Your task to perform on an android device: turn on airplane mode Image 0: 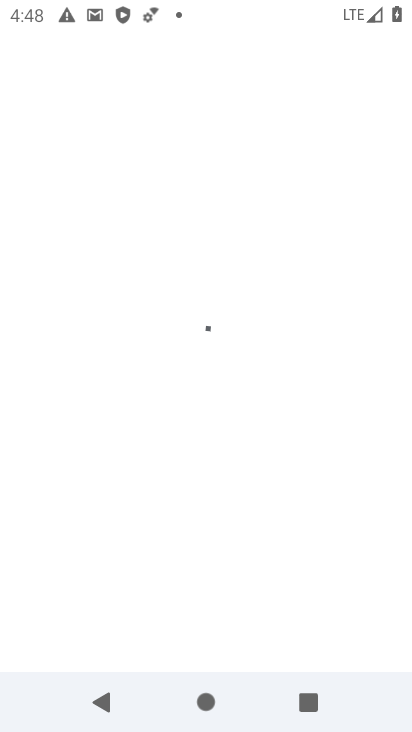
Step 0: drag from (201, 604) to (240, 157)
Your task to perform on an android device: turn on airplane mode Image 1: 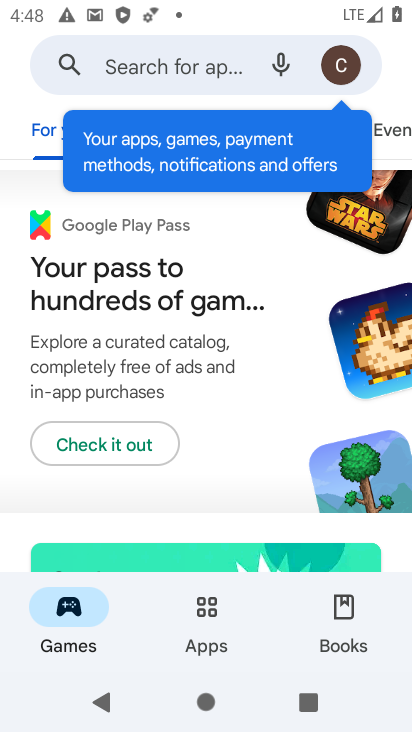
Step 1: press home button
Your task to perform on an android device: turn on airplane mode Image 2: 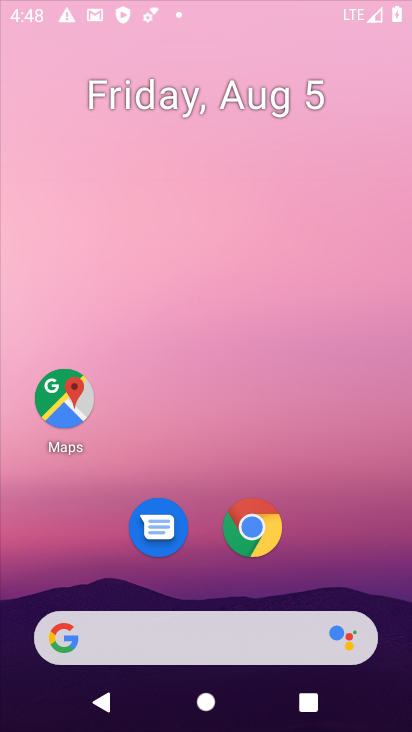
Step 2: drag from (174, 472) to (214, 154)
Your task to perform on an android device: turn on airplane mode Image 3: 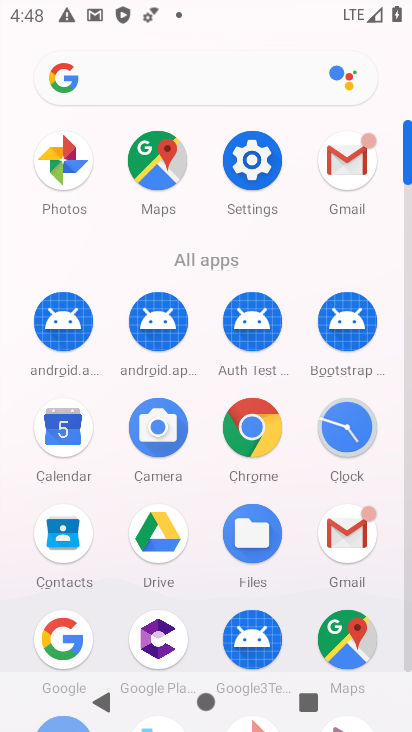
Step 3: drag from (202, 586) to (177, 257)
Your task to perform on an android device: turn on airplane mode Image 4: 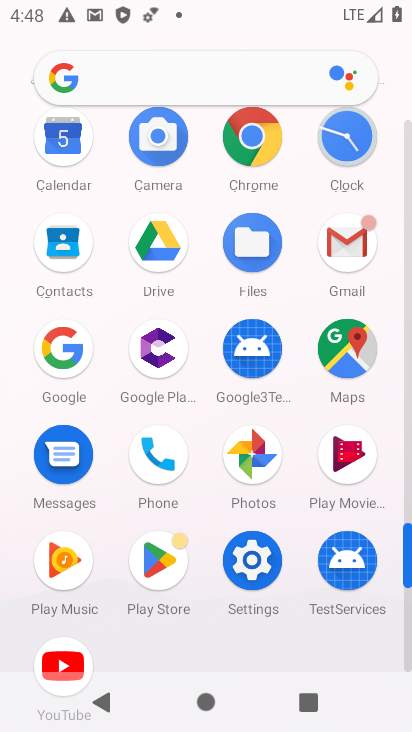
Step 4: click (242, 568)
Your task to perform on an android device: turn on airplane mode Image 5: 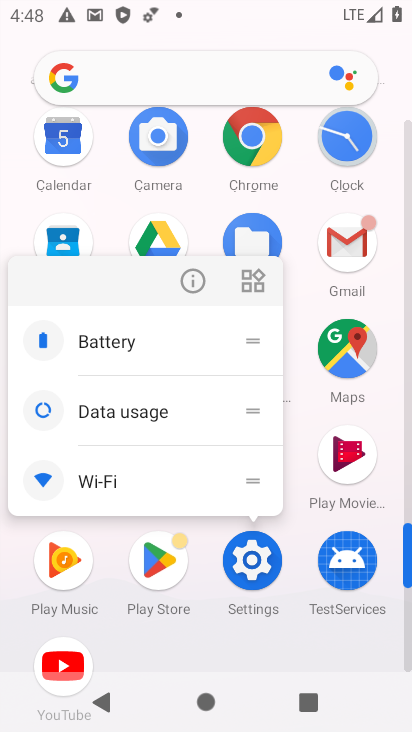
Step 5: click (186, 277)
Your task to perform on an android device: turn on airplane mode Image 6: 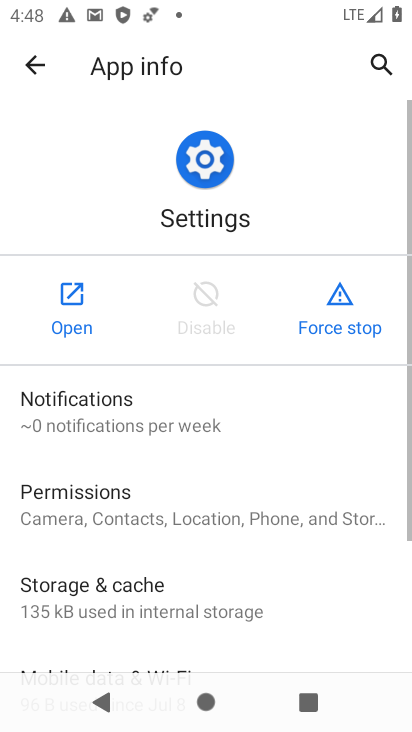
Step 6: click (84, 323)
Your task to perform on an android device: turn on airplane mode Image 7: 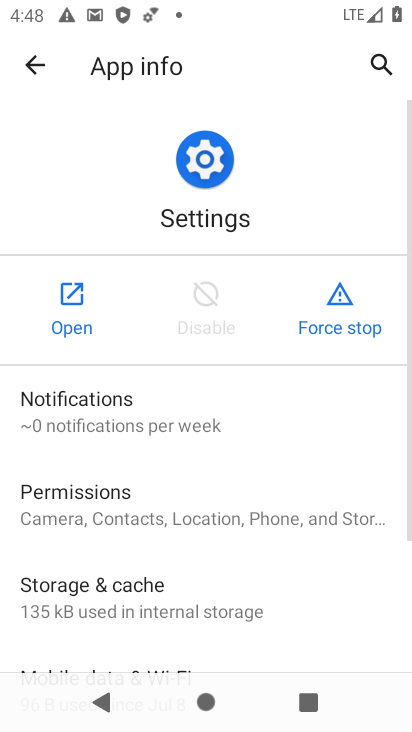
Step 7: click (81, 321)
Your task to perform on an android device: turn on airplane mode Image 8: 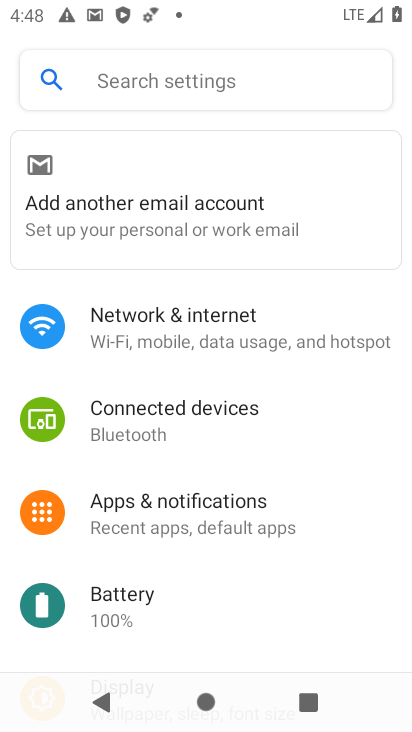
Step 8: click (178, 350)
Your task to perform on an android device: turn on airplane mode Image 9: 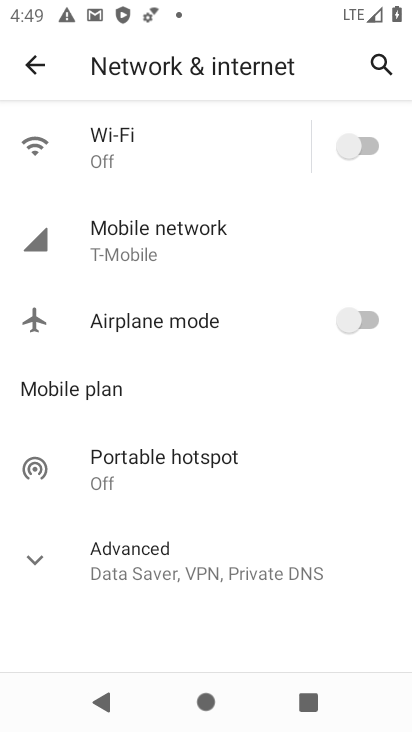
Step 9: click (303, 334)
Your task to perform on an android device: turn on airplane mode Image 10: 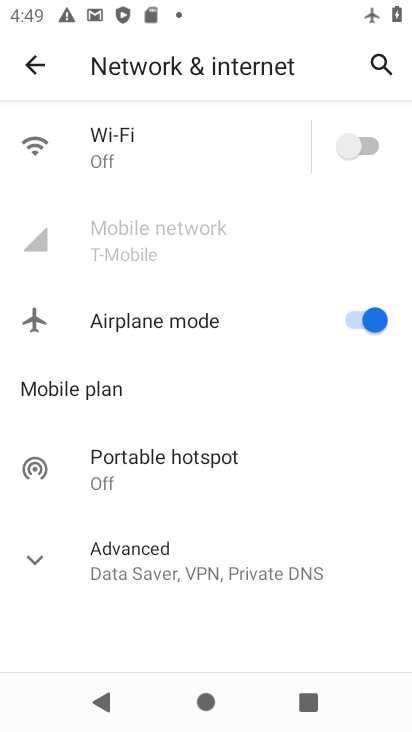
Step 10: task complete